Your task to perform on an android device: Go to ESPN.com Image 0: 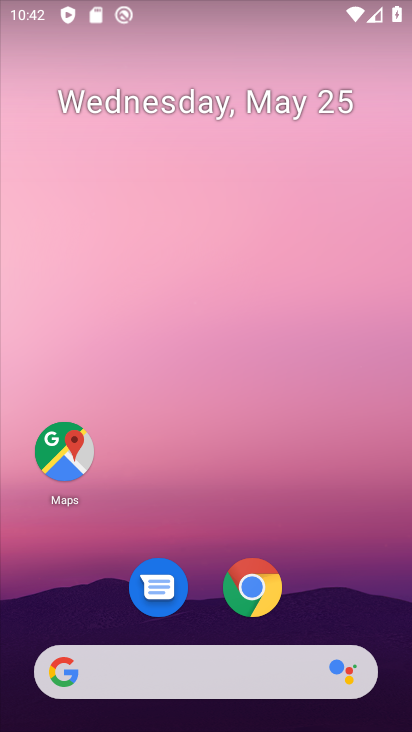
Step 0: drag from (308, 615) to (242, 21)
Your task to perform on an android device: Go to ESPN.com Image 1: 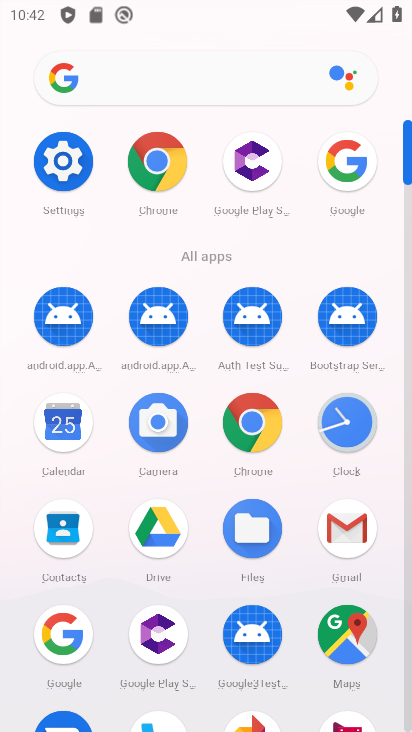
Step 1: drag from (9, 562) to (0, 198)
Your task to perform on an android device: Go to ESPN.com Image 2: 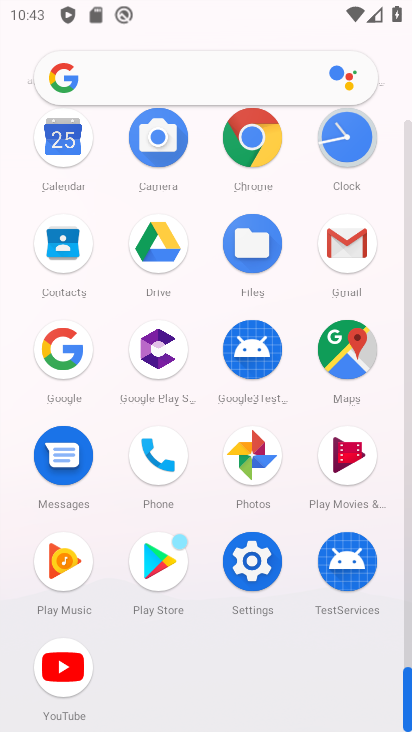
Step 2: click (249, 137)
Your task to perform on an android device: Go to ESPN.com Image 3: 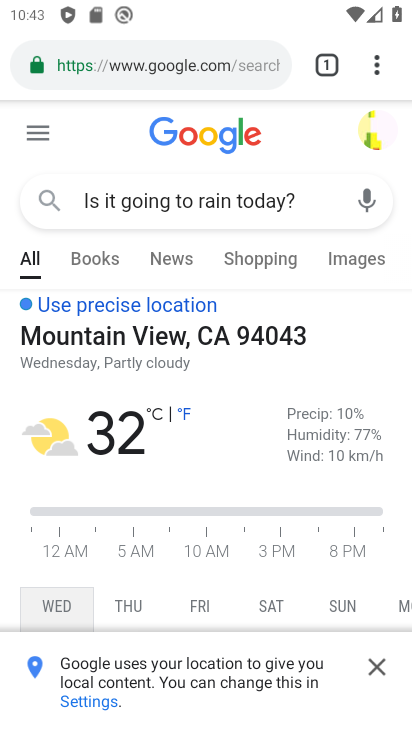
Step 3: click (174, 57)
Your task to perform on an android device: Go to ESPN.com Image 4: 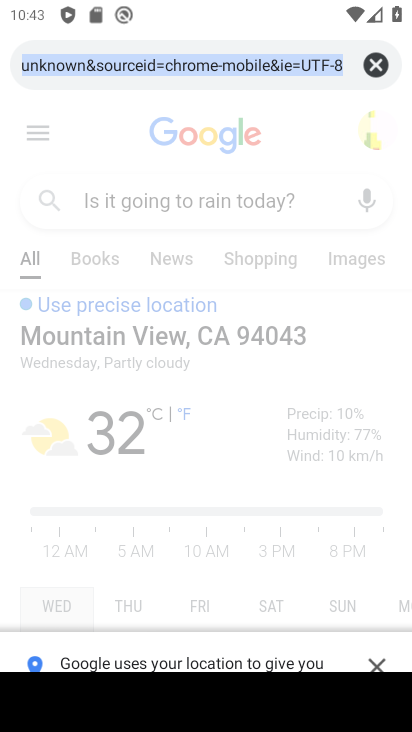
Step 4: click (375, 65)
Your task to perform on an android device: Go to ESPN.com Image 5: 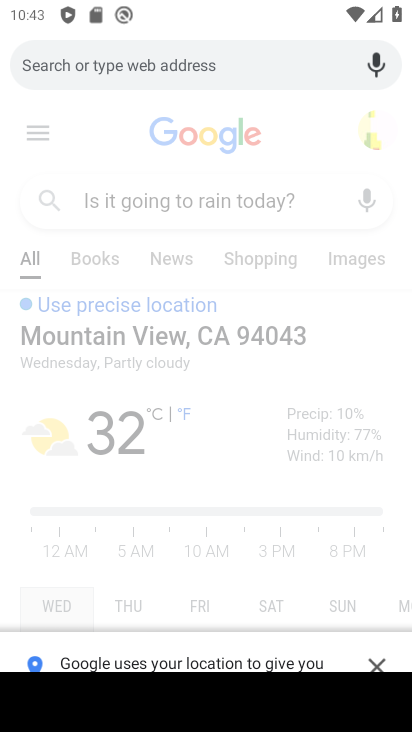
Step 5: type "ESPN.com"
Your task to perform on an android device: Go to ESPN.com Image 6: 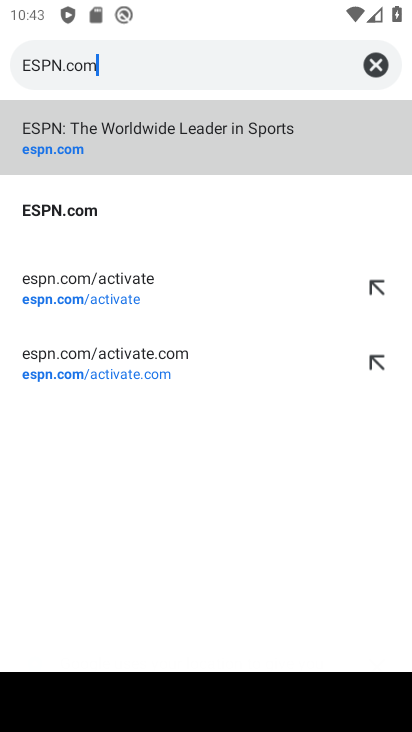
Step 6: click (198, 132)
Your task to perform on an android device: Go to ESPN.com Image 7: 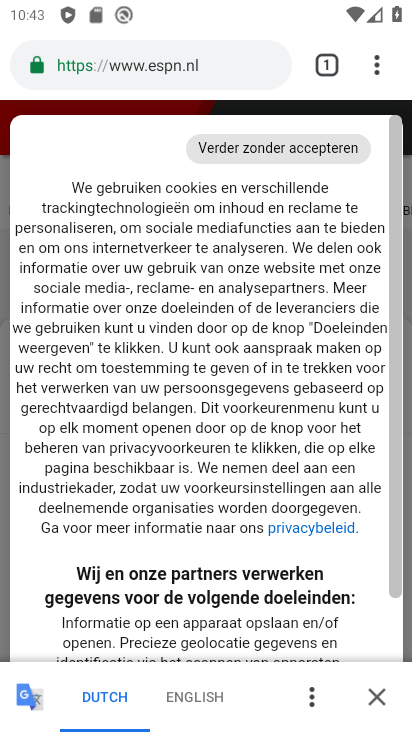
Step 7: drag from (249, 626) to (250, 243)
Your task to perform on an android device: Go to ESPN.com Image 8: 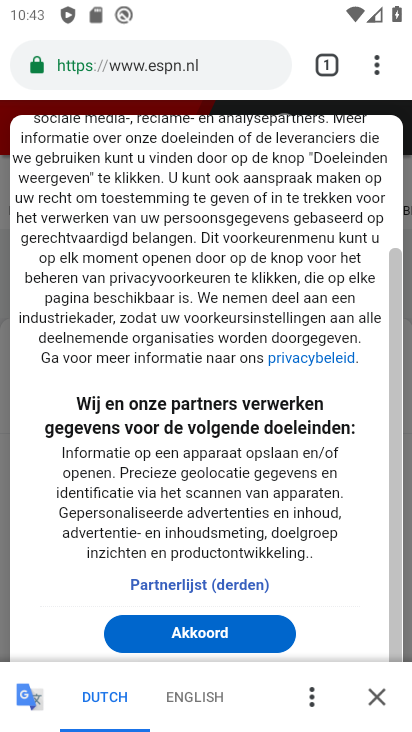
Step 8: click (196, 630)
Your task to perform on an android device: Go to ESPN.com Image 9: 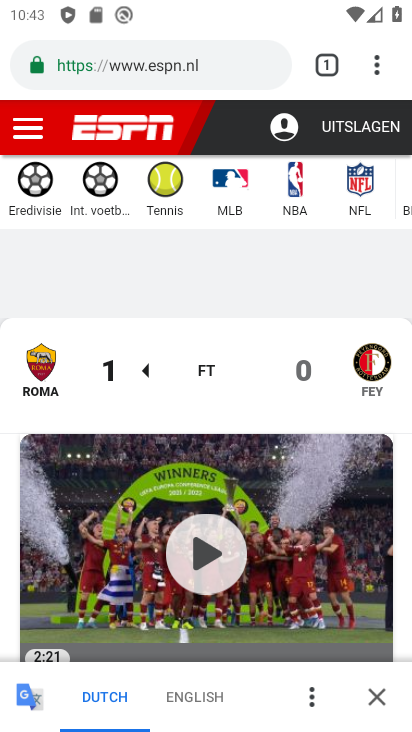
Step 9: task complete